Your task to perform on an android device: Go to CNN.com Image 0: 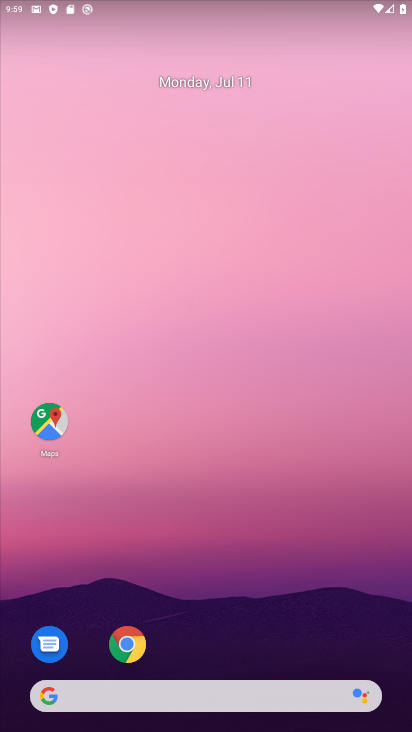
Step 0: drag from (214, 635) to (285, 130)
Your task to perform on an android device: Go to CNN.com Image 1: 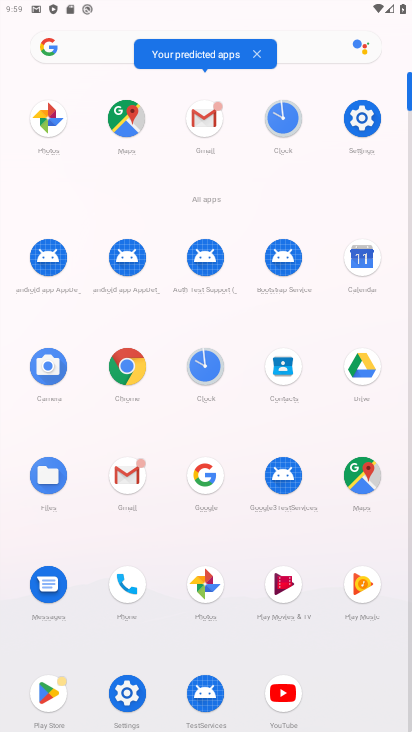
Step 1: click (206, 476)
Your task to perform on an android device: Go to CNN.com Image 2: 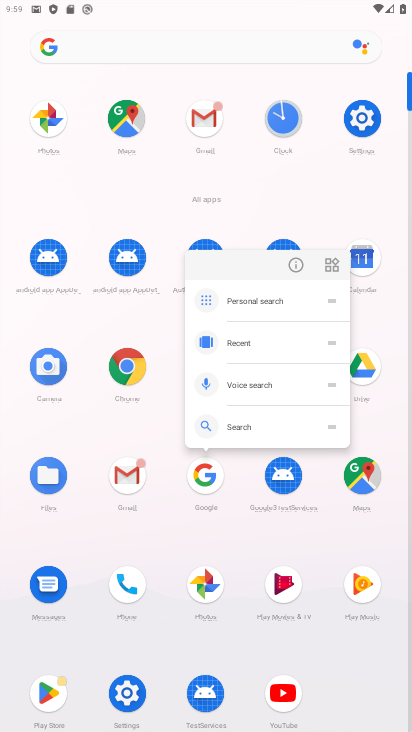
Step 2: click (206, 476)
Your task to perform on an android device: Go to CNN.com Image 3: 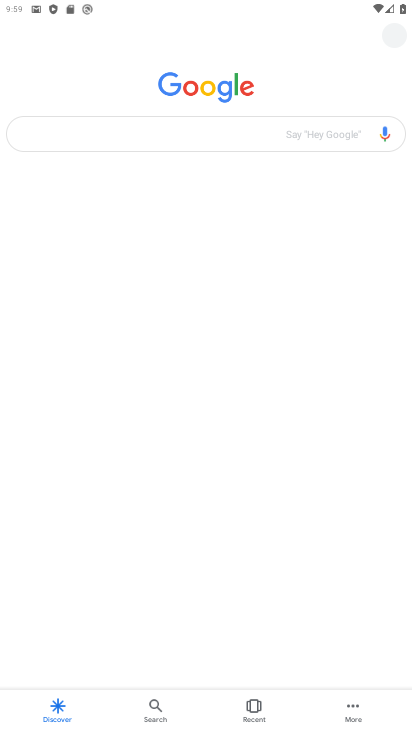
Step 3: click (161, 125)
Your task to perform on an android device: Go to CNN.com Image 4: 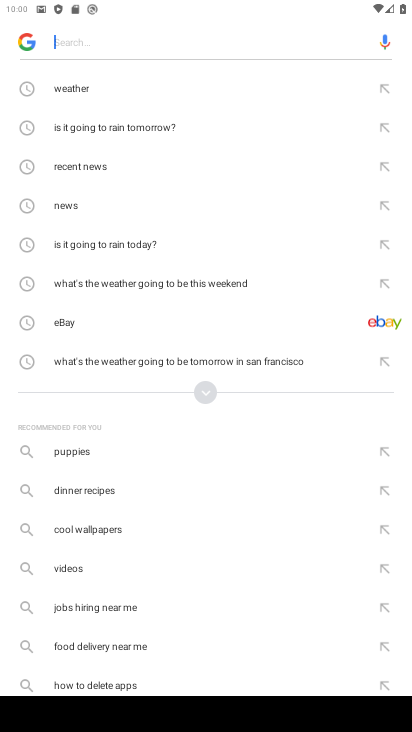
Step 4: type "cnn.com"
Your task to perform on an android device: Go to CNN.com Image 5: 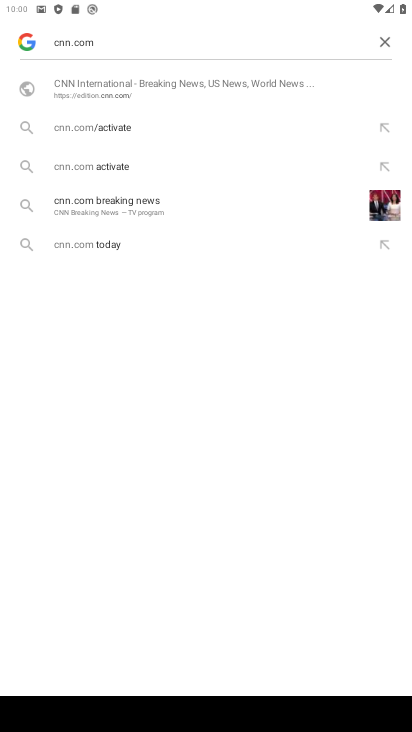
Step 5: click (104, 92)
Your task to perform on an android device: Go to CNN.com Image 6: 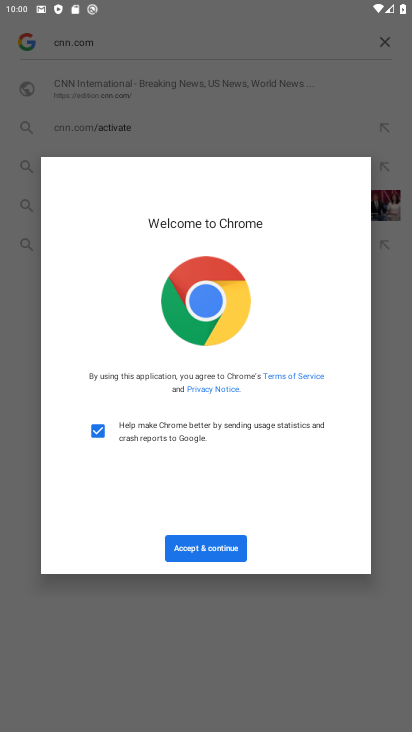
Step 6: click (232, 546)
Your task to perform on an android device: Go to CNN.com Image 7: 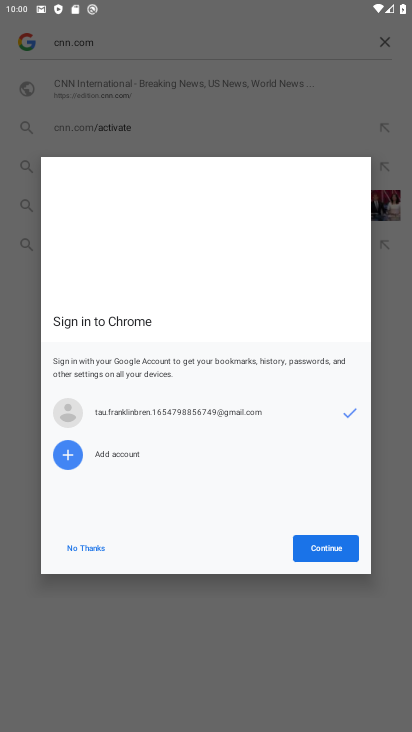
Step 7: click (331, 540)
Your task to perform on an android device: Go to CNN.com Image 8: 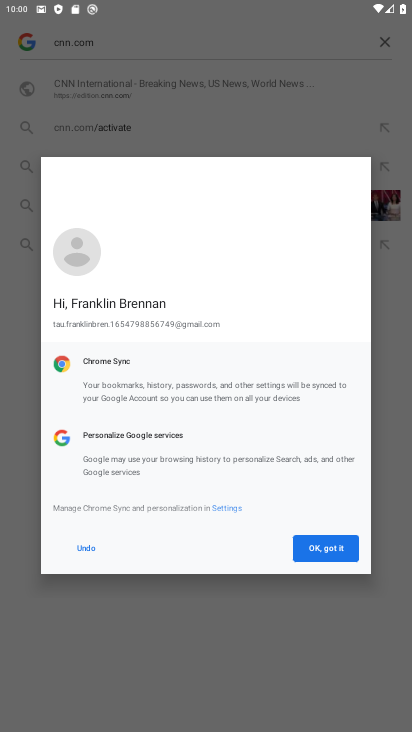
Step 8: click (331, 540)
Your task to perform on an android device: Go to CNN.com Image 9: 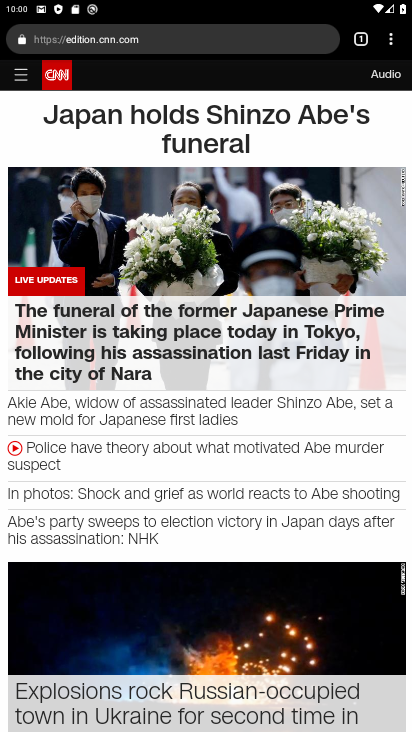
Step 9: task complete